Your task to perform on an android device: Open maps Image 0: 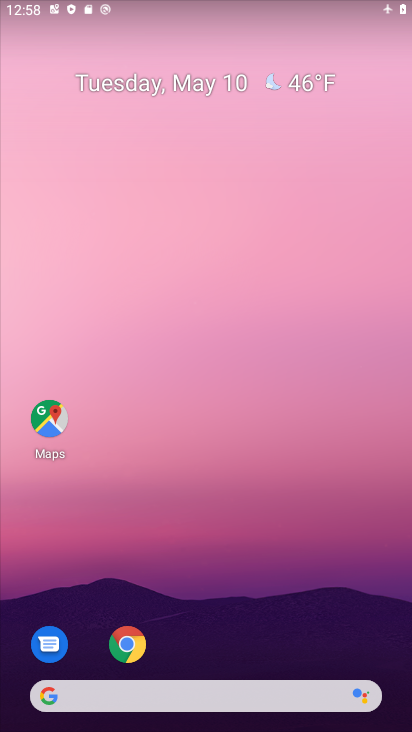
Step 0: drag from (271, 674) to (258, 229)
Your task to perform on an android device: Open maps Image 1: 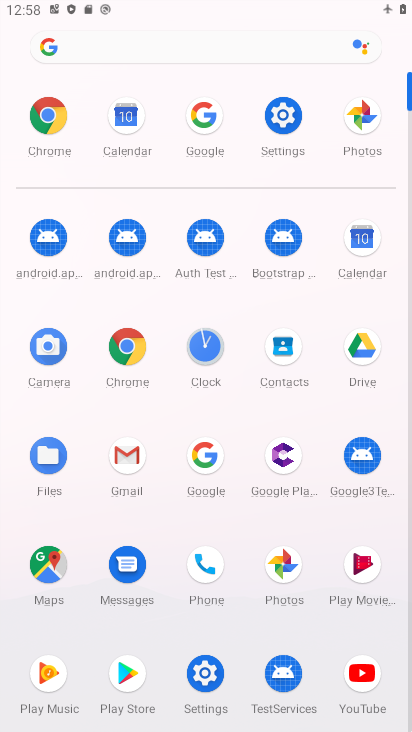
Step 1: click (38, 588)
Your task to perform on an android device: Open maps Image 2: 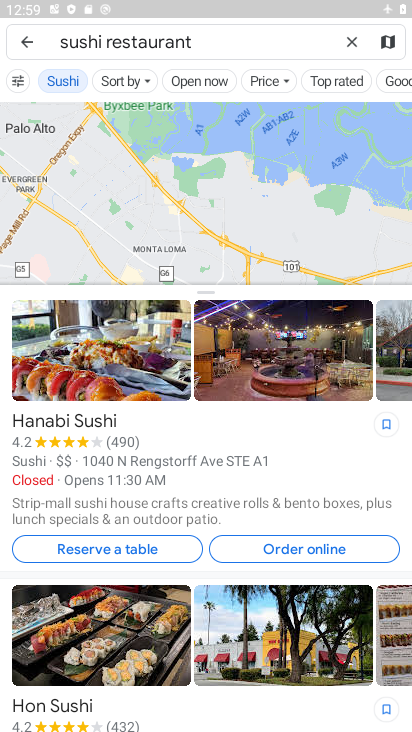
Step 2: task complete